Your task to perform on an android device: Search for sushi restaurants on Maps Image 0: 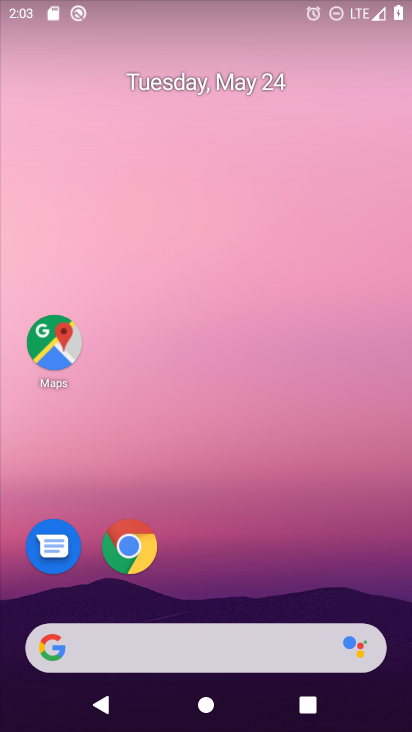
Step 0: drag from (296, 626) to (364, 49)
Your task to perform on an android device: Search for sushi restaurants on Maps Image 1: 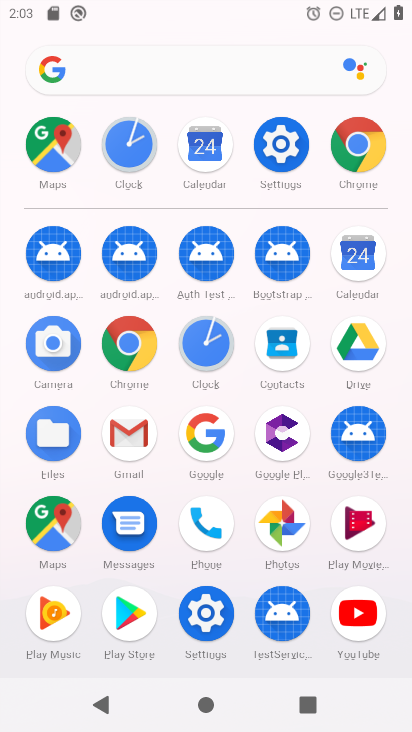
Step 1: click (75, 534)
Your task to perform on an android device: Search for sushi restaurants on Maps Image 2: 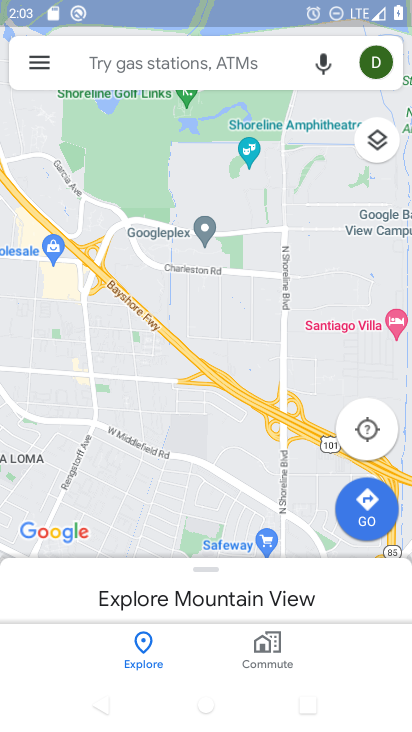
Step 2: click (261, 55)
Your task to perform on an android device: Search for sushi restaurants on Maps Image 3: 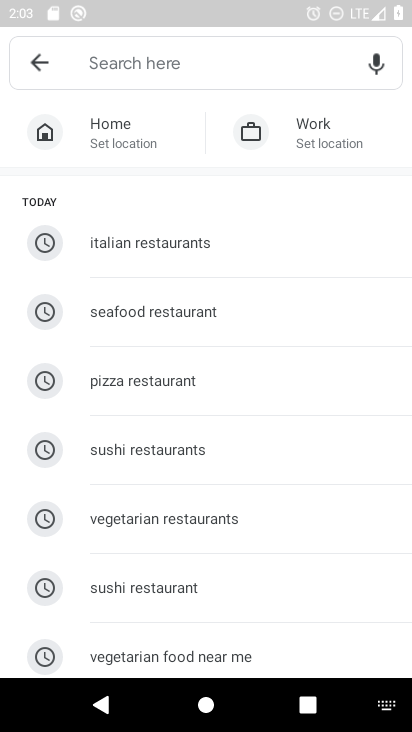
Step 3: click (145, 457)
Your task to perform on an android device: Search for sushi restaurants on Maps Image 4: 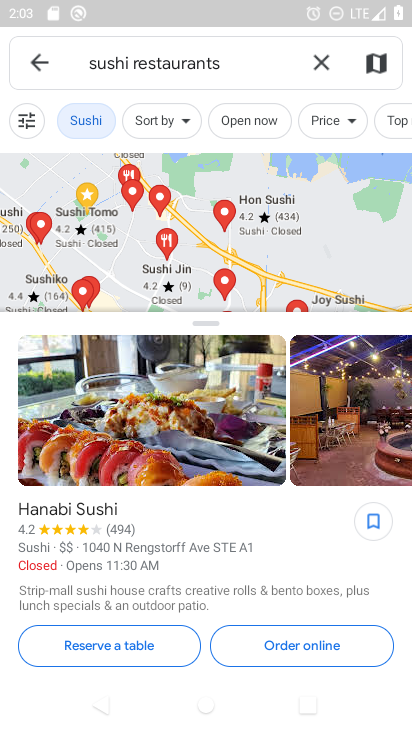
Step 4: task complete